Your task to perform on an android device: Open battery settings Image 0: 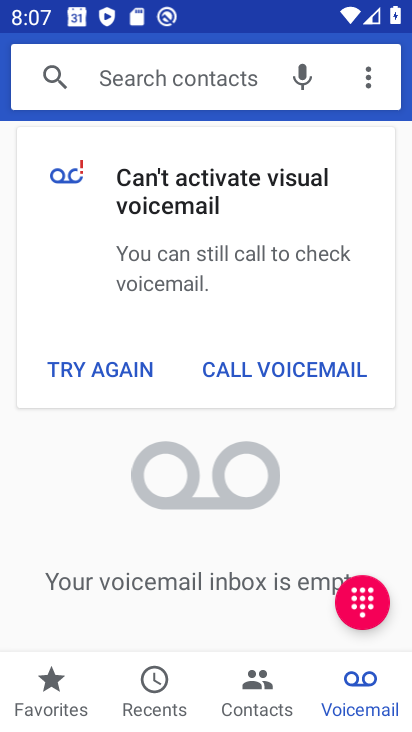
Step 0: press home button
Your task to perform on an android device: Open battery settings Image 1: 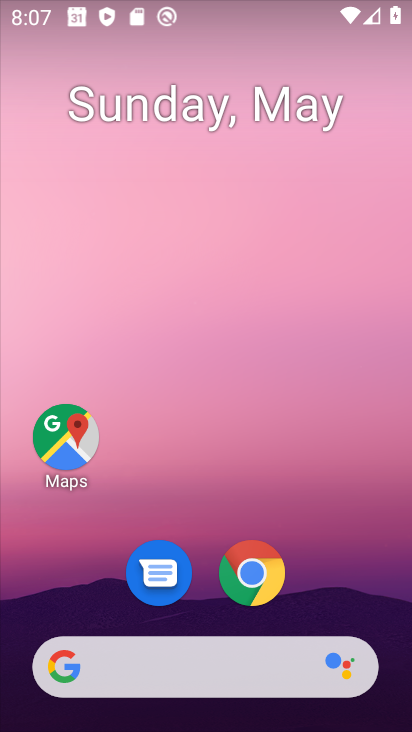
Step 1: drag from (318, 589) to (280, 225)
Your task to perform on an android device: Open battery settings Image 2: 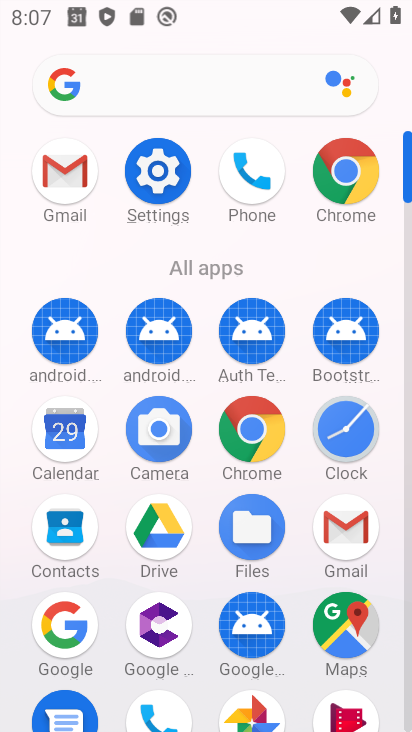
Step 2: click (150, 161)
Your task to perform on an android device: Open battery settings Image 3: 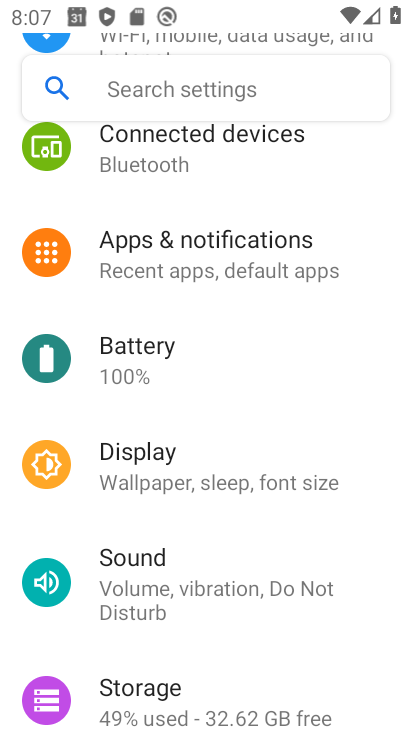
Step 3: click (172, 340)
Your task to perform on an android device: Open battery settings Image 4: 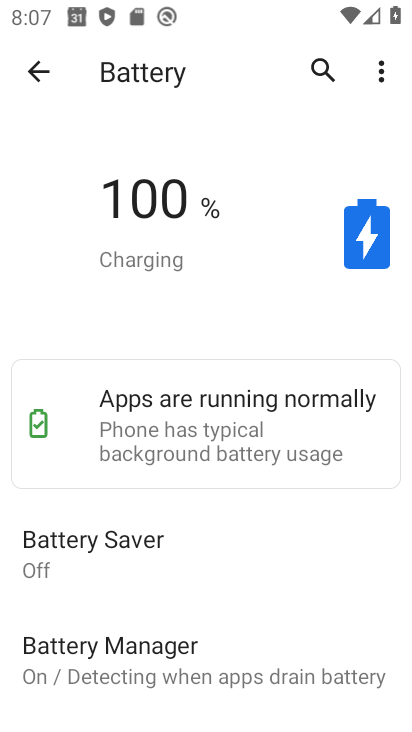
Step 4: task complete